Your task to perform on an android device: Show me some nice wallpapers for my desktop Image 0: 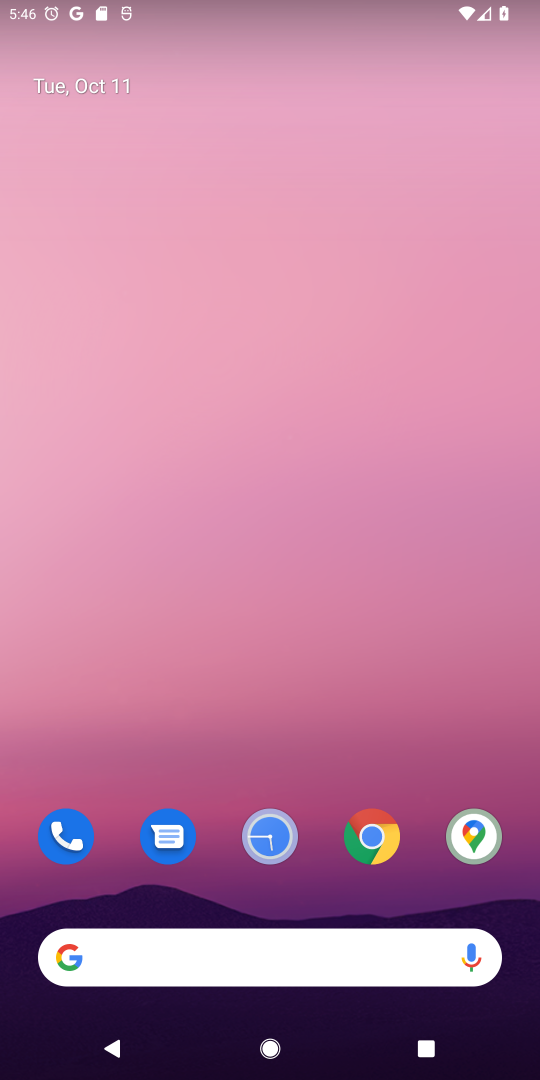
Step 0: click (355, 966)
Your task to perform on an android device: Show me some nice wallpapers for my desktop Image 1: 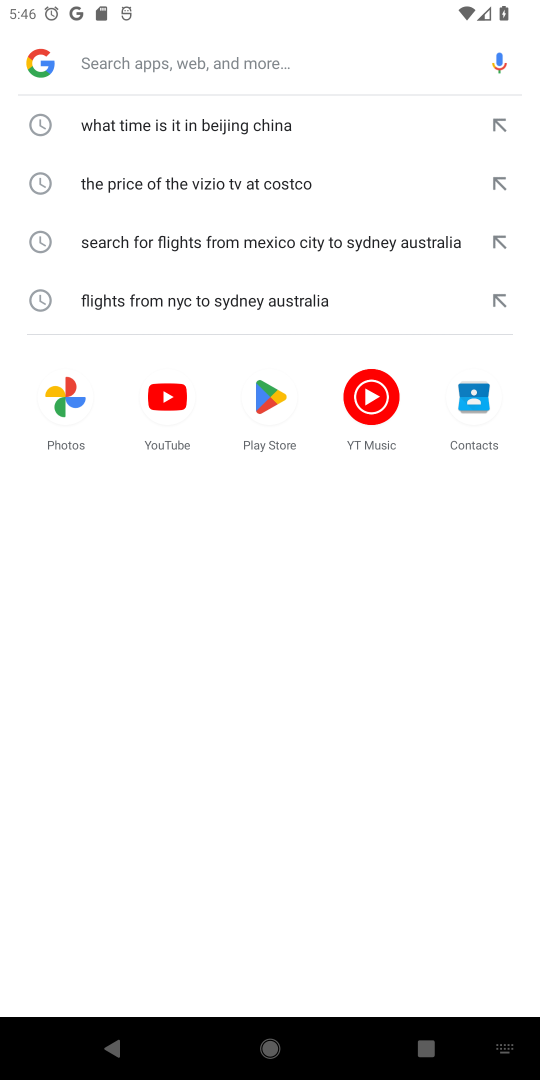
Step 1: type "Show me some nice wallpapers for my desktop"
Your task to perform on an android device: Show me some nice wallpapers for my desktop Image 2: 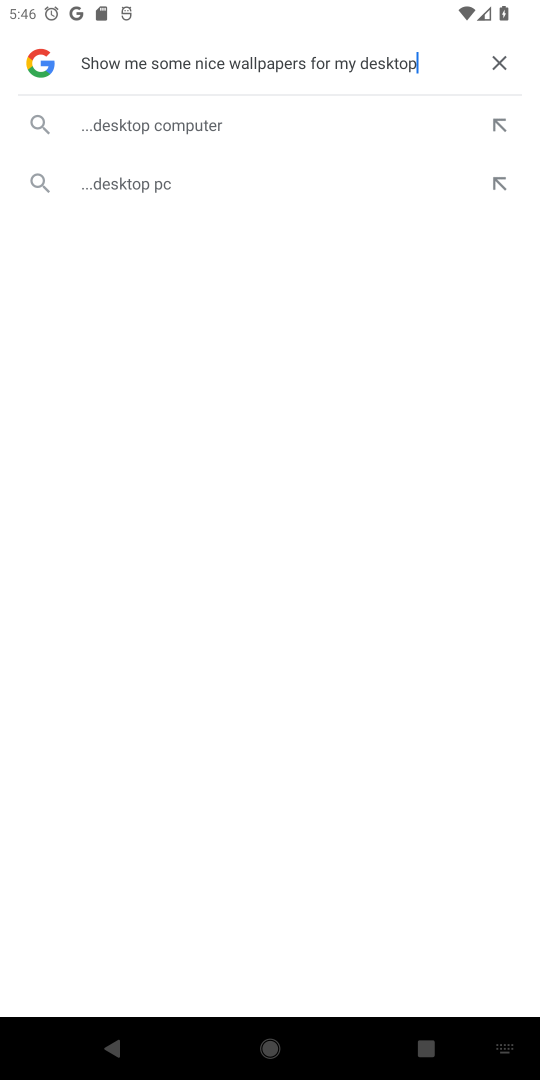
Step 2: click (175, 138)
Your task to perform on an android device: Show me some nice wallpapers for my desktop Image 3: 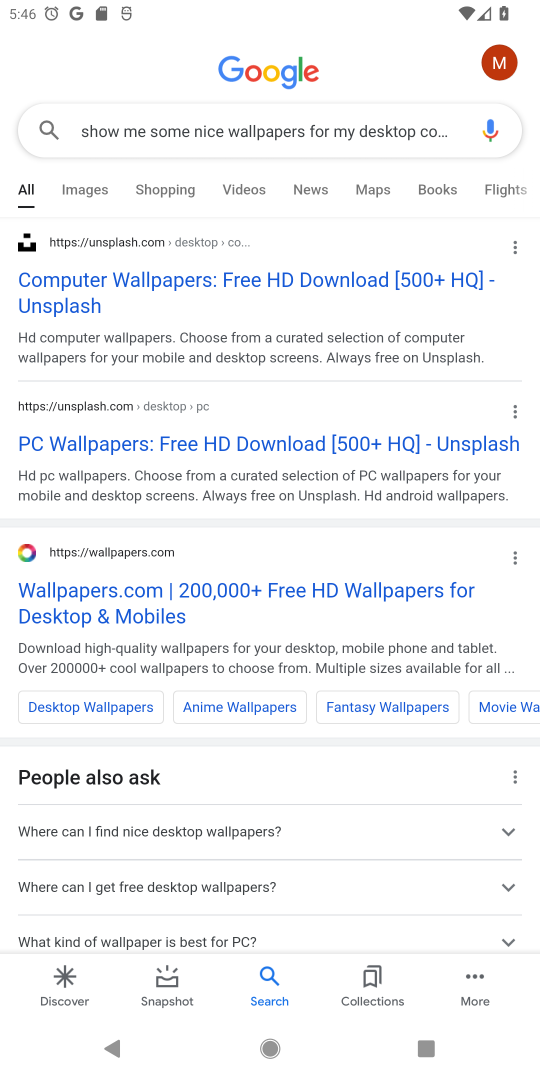
Step 3: task complete